Your task to perform on an android device: Open network settings Image 0: 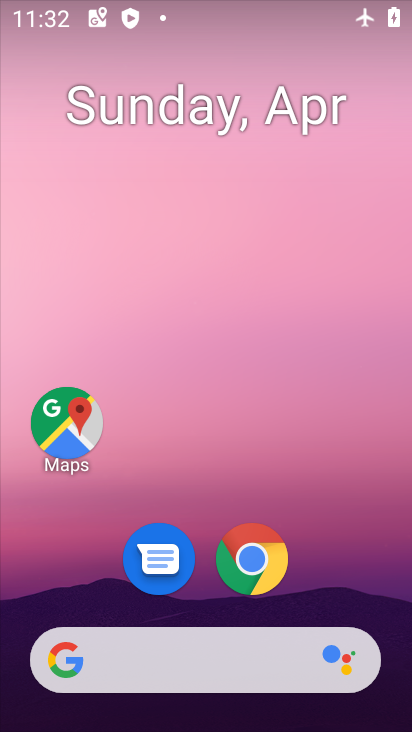
Step 0: drag from (336, 584) to (346, 5)
Your task to perform on an android device: Open network settings Image 1: 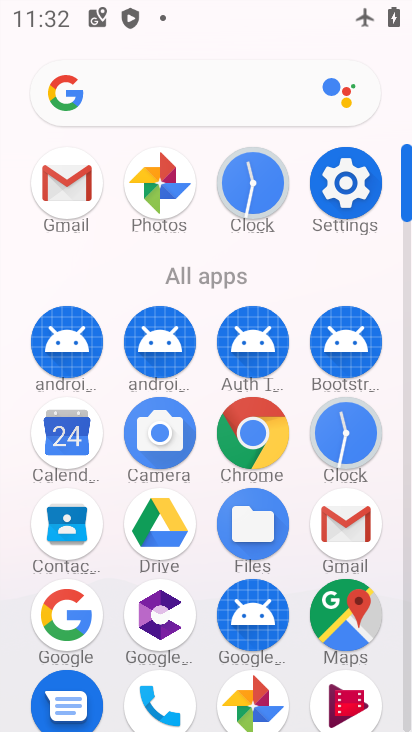
Step 1: click (348, 190)
Your task to perform on an android device: Open network settings Image 2: 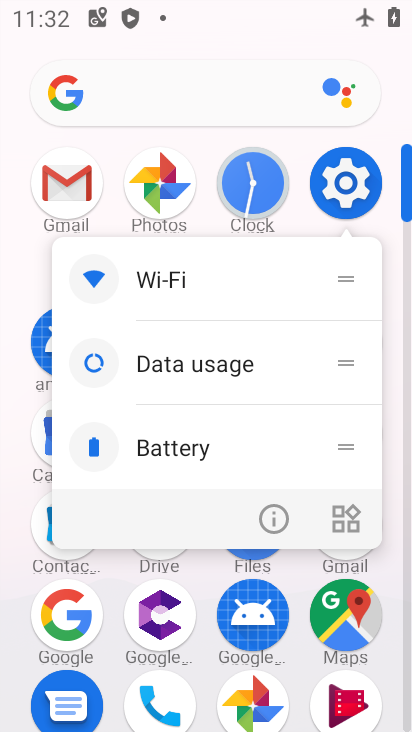
Step 2: click (345, 195)
Your task to perform on an android device: Open network settings Image 3: 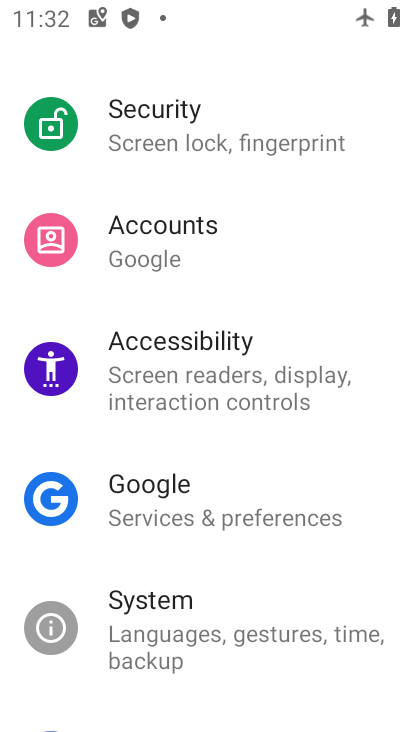
Step 3: drag from (255, 195) to (260, 279)
Your task to perform on an android device: Open network settings Image 4: 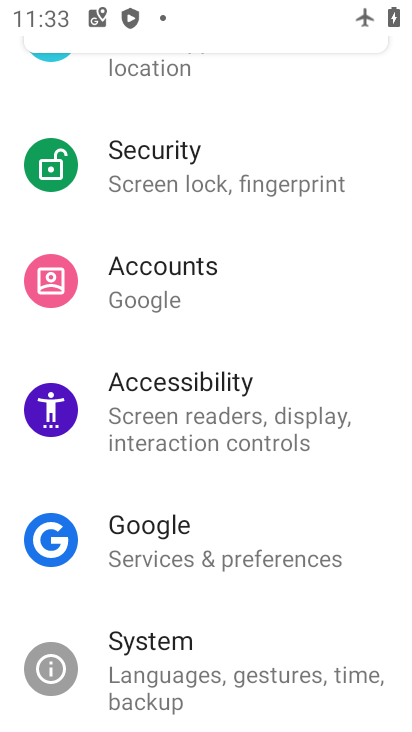
Step 4: drag from (244, 207) to (230, 298)
Your task to perform on an android device: Open network settings Image 5: 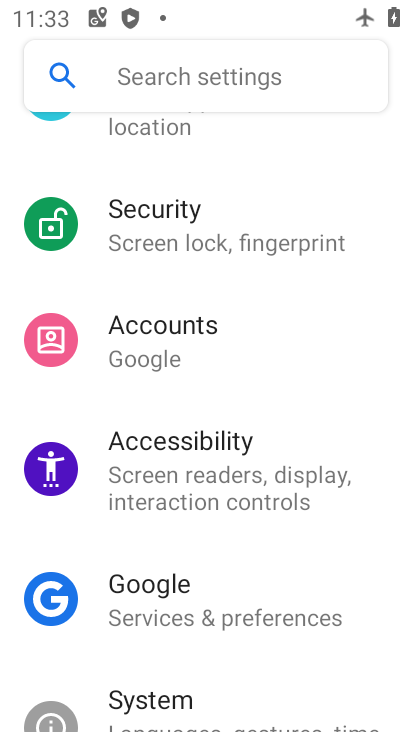
Step 5: drag from (221, 218) to (223, 293)
Your task to perform on an android device: Open network settings Image 6: 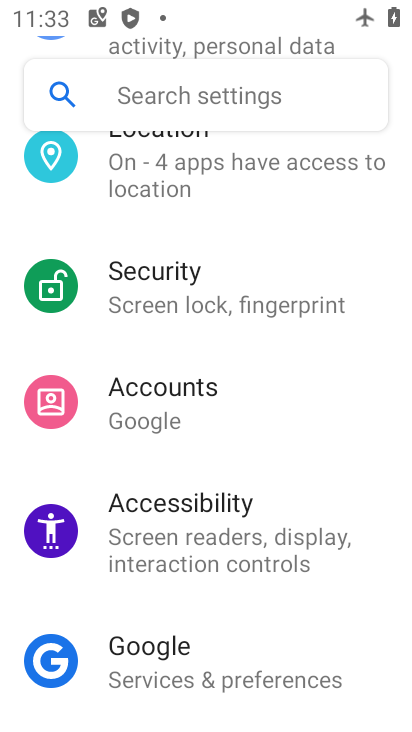
Step 6: drag from (215, 217) to (227, 270)
Your task to perform on an android device: Open network settings Image 7: 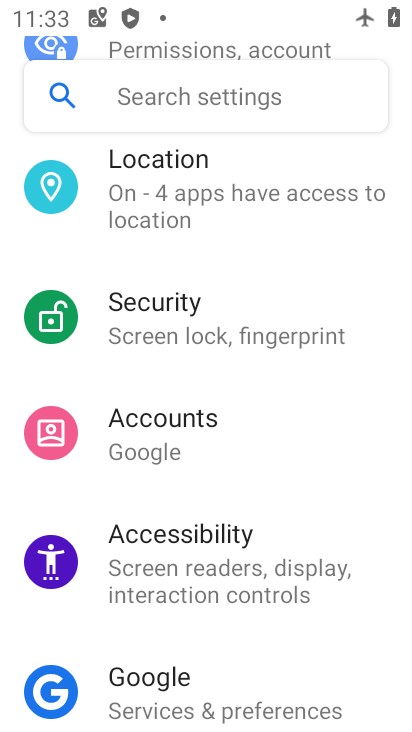
Step 7: drag from (214, 229) to (213, 298)
Your task to perform on an android device: Open network settings Image 8: 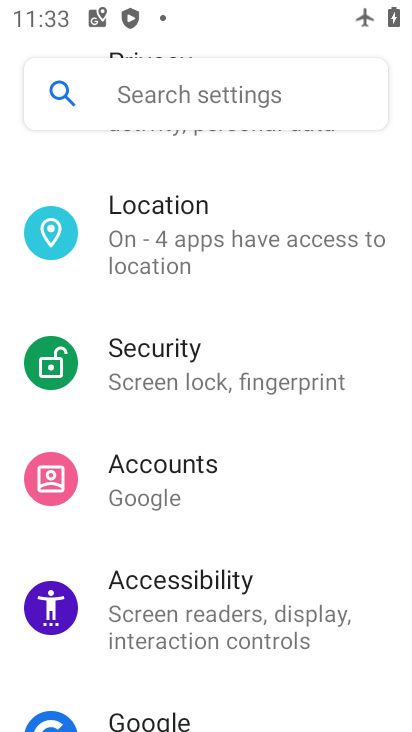
Step 8: drag from (201, 237) to (195, 368)
Your task to perform on an android device: Open network settings Image 9: 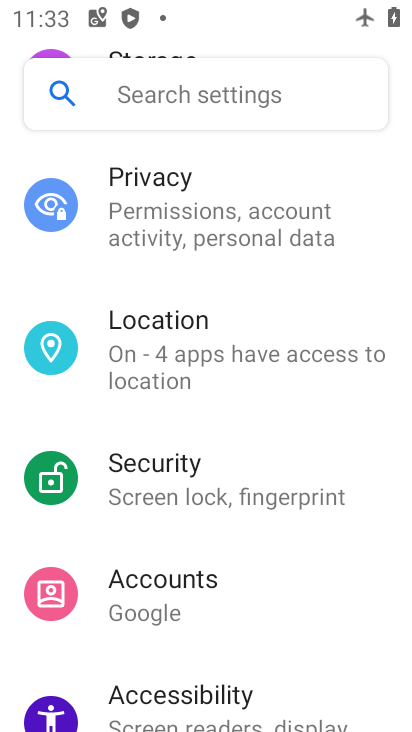
Step 9: drag from (169, 291) to (178, 381)
Your task to perform on an android device: Open network settings Image 10: 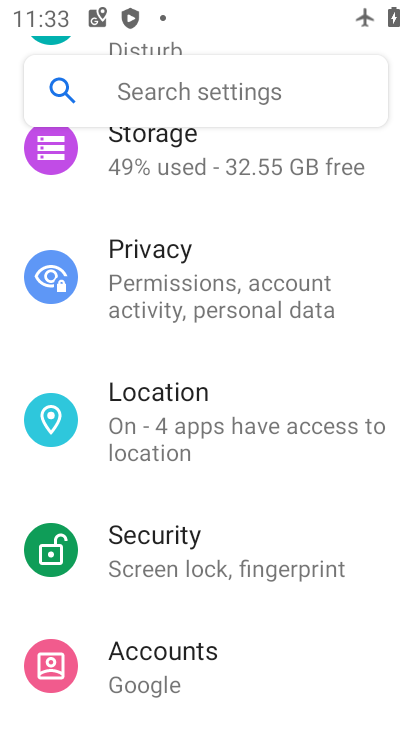
Step 10: drag from (171, 282) to (166, 373)
Your task to perform on an android device: Open network settings Image 11: 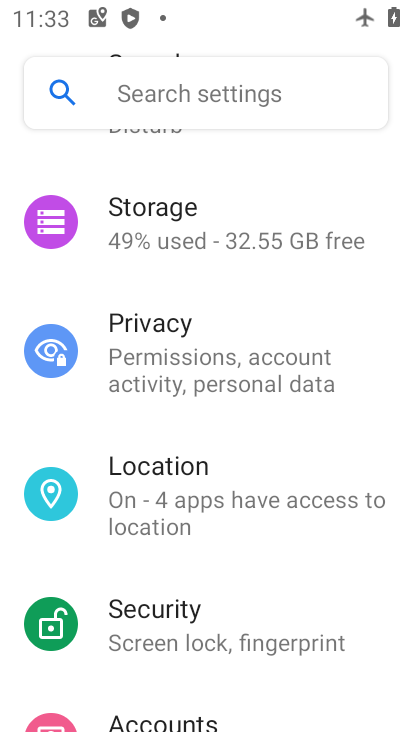
Step 11: drag from (159, 283) to (156, 354)
Your task to perform on an android device: Open network settings Image 12: 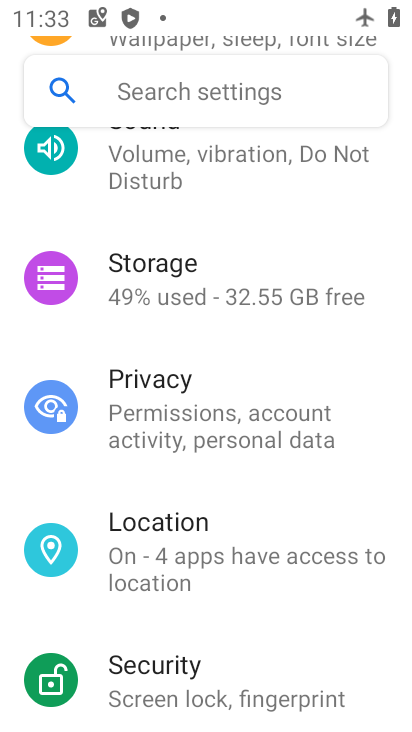
Step 12: drag from (133, 280) to (137, 358)
Your task to perform on an android device: Open network settings Image 13: 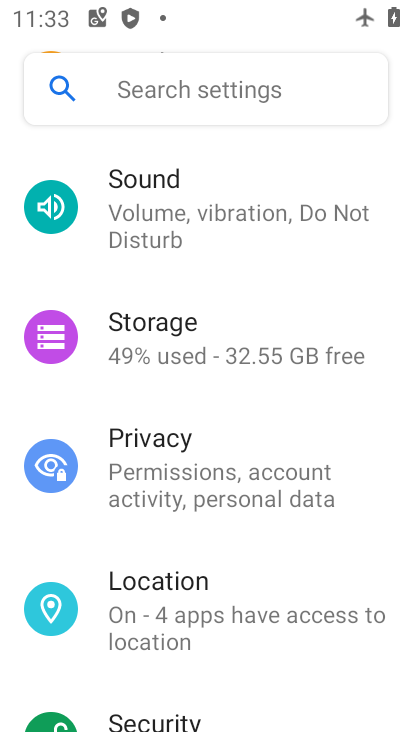
Step 13: drag from (121, 267) to (124, 381)
Your task to perform on an android device: Open network settings Image 14: 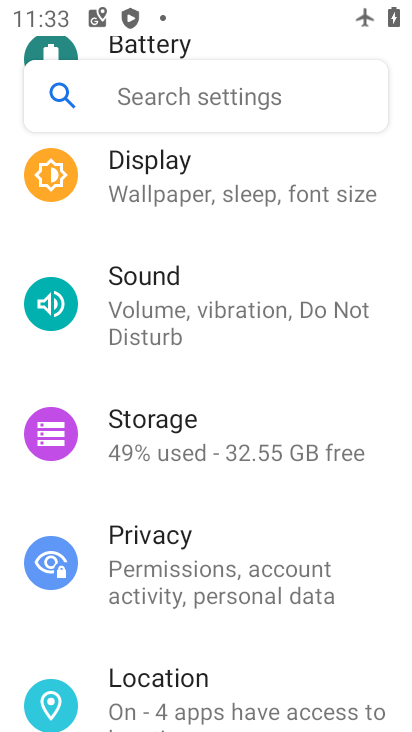
Step 14: drag from (104, 243) to (108, 302)
Your task to perform on an android device: Open network settings Image 15: 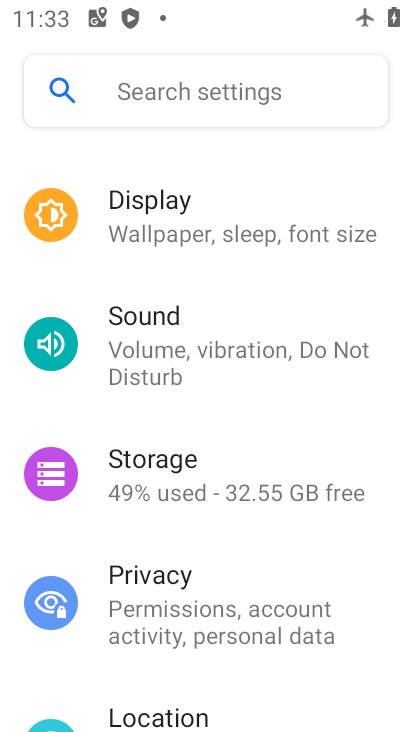
Step 15: drag from (154, 335) to (171, 393)
Your task to perform on an android device: Open network settings Image 16: 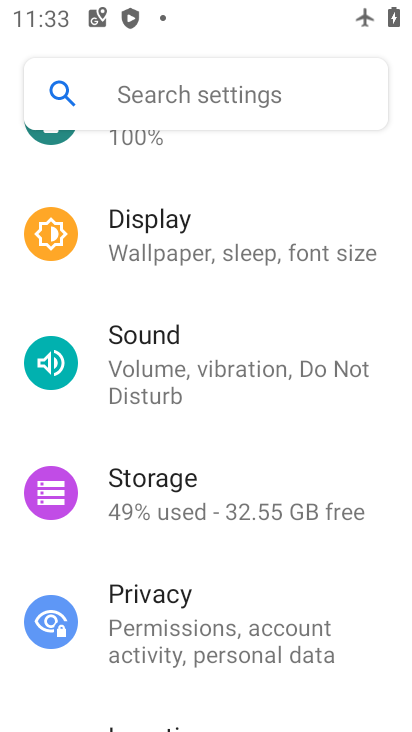
Step 16: drag from (208, 259) to (197, 344)
Your task to perform on an android device: Open network settings Image 17: 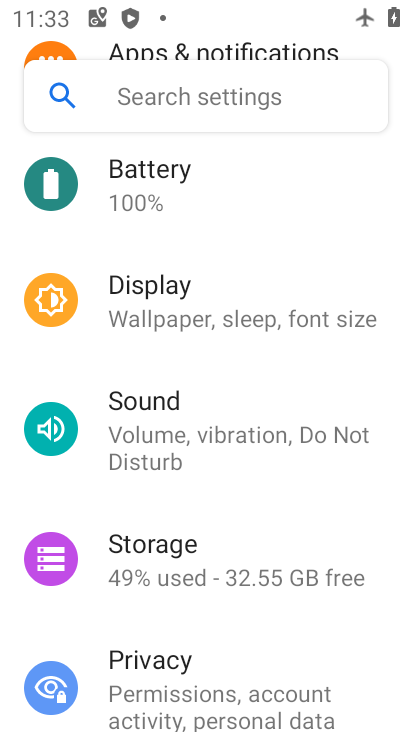
Step 17: drag from (187, 287) to (176, 367)
Your task to perform on an android device: Open network settings Image 18: 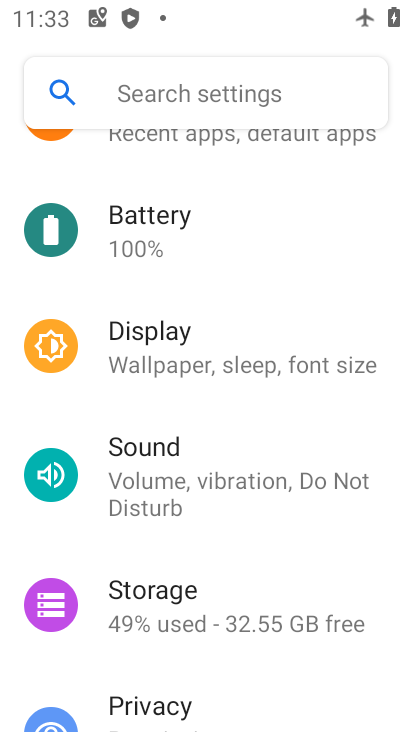
Step 18: drag from (147, 292) to (145, 375)
Your task to perform on an android device: Open network settings Image 19: 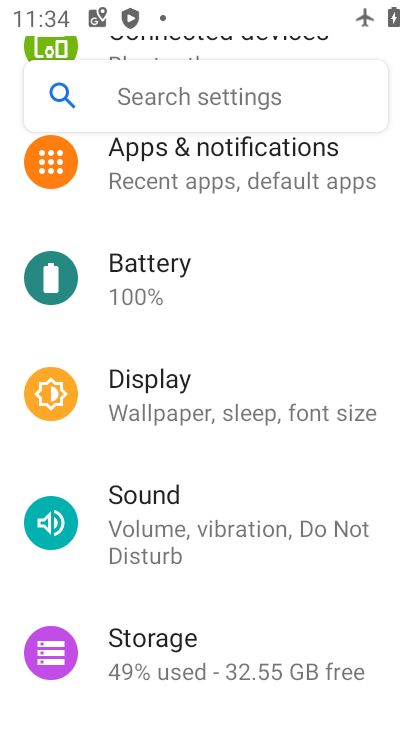
Step 19: drag from (128, 288) to (104, 369)
Your task to perform on an android device: Open network settings Image 20: 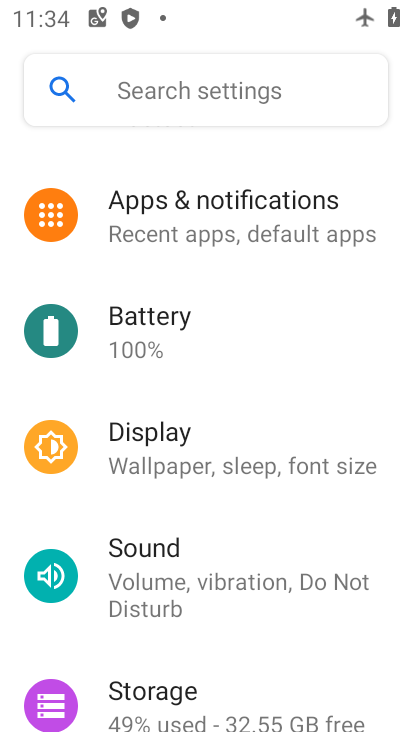
Step 20: drag from (150, 224) to (186, 342)
Your task to perform on an android device: Open network settings Image 21: 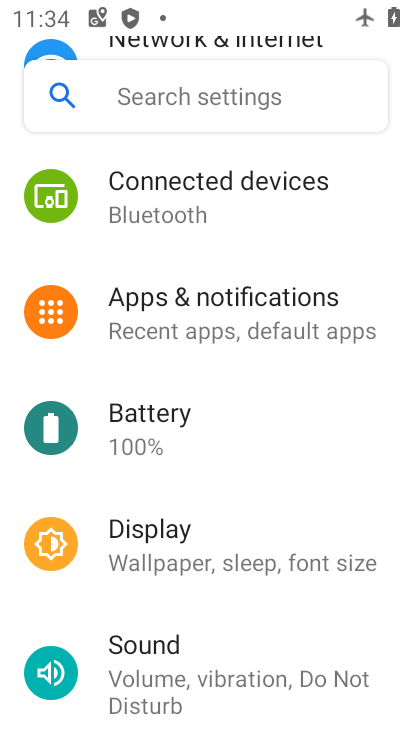
Step 21: drag from (169, 287) to (178, 372)
Your task to perform on an android device: Open network settings Image 22: 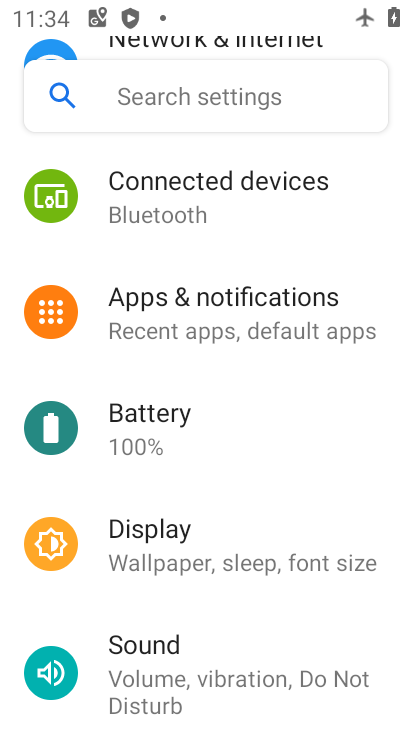
Step 22: drag from (180, 239) to (189, 379)
Your task to perform on an android device: Open network settings Image 23: 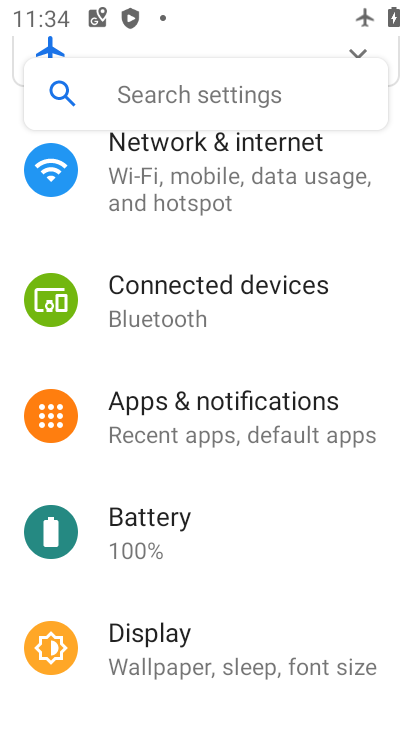
Step 23: drag from (174, 254) to (181, 405)
Your task to perform on an android device: Open network settings Image 24: 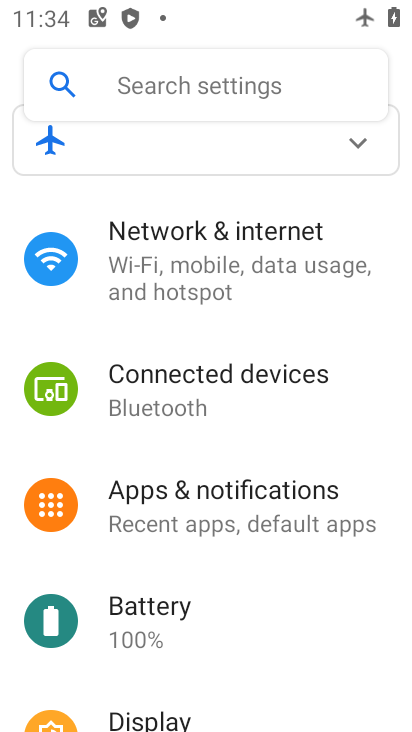
Step 24: click (136, 266)
Your task to perform on an android device: Open network settings Image 25: 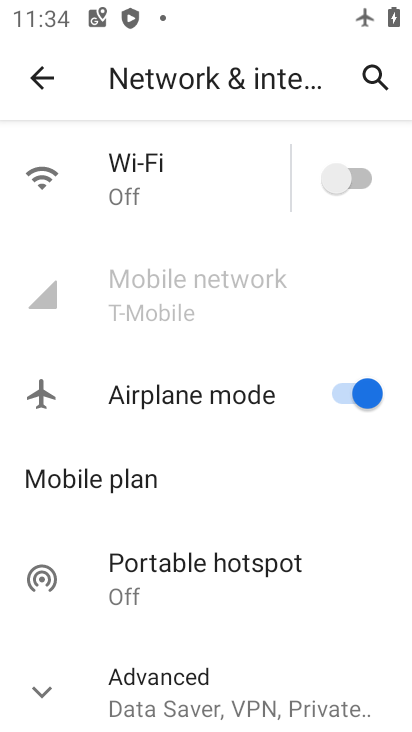
Step 25: click (281, 263)
Your task to perform on an android device: Open network settings Image 26: 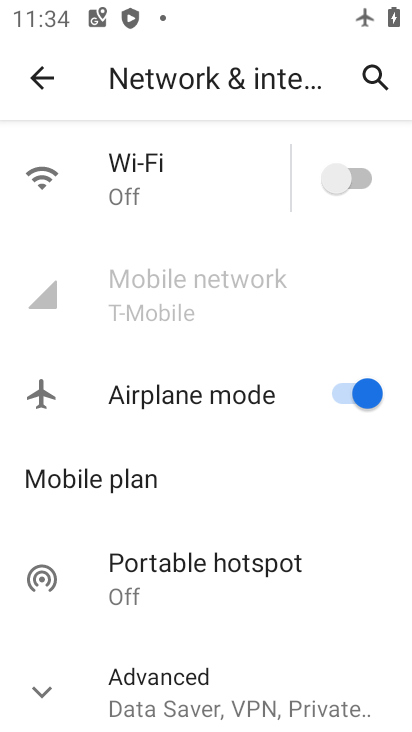
Step 26: task complete